Your task to perform on an android device: toggle notifications settings in the gmail app Image 0: 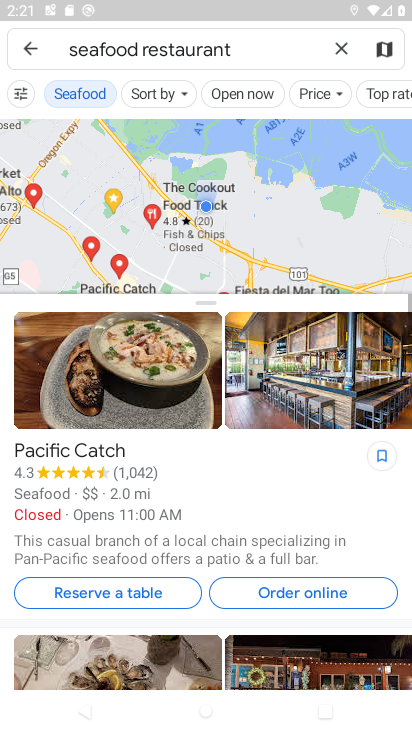
Step 0: press home button
Your task to perform on an android device: toggle notifications settings in the gmail app Image 1: 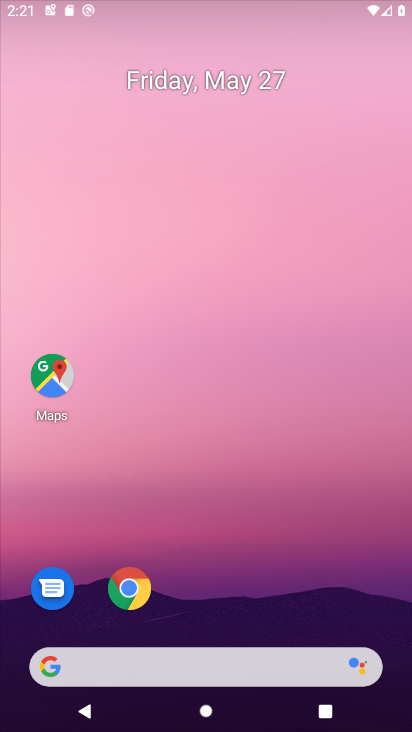
Step 1: drag from (237, 598) to (249, 0)
Your task to perform on an android device: toggle notifications settings in the gmail app Image 2: 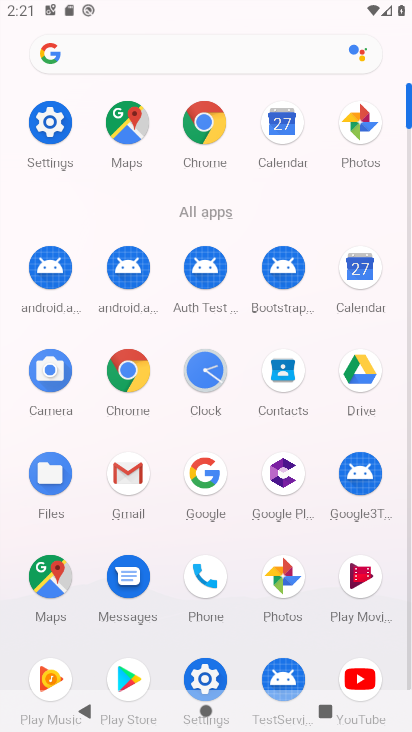
Step 2: click (129, 481)
Your task to perform on an android device: toggle notifications settings in the gmail app Image 3: 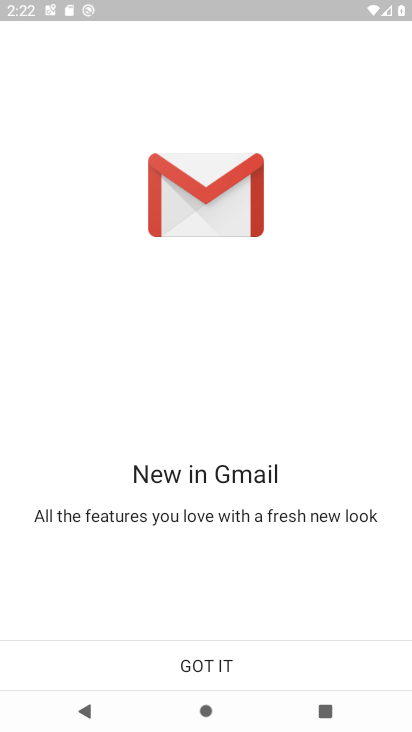
Step 3: click (178, 655)
Your task to perform on an android device: toggle notifications settings in the gmail app Image 4: 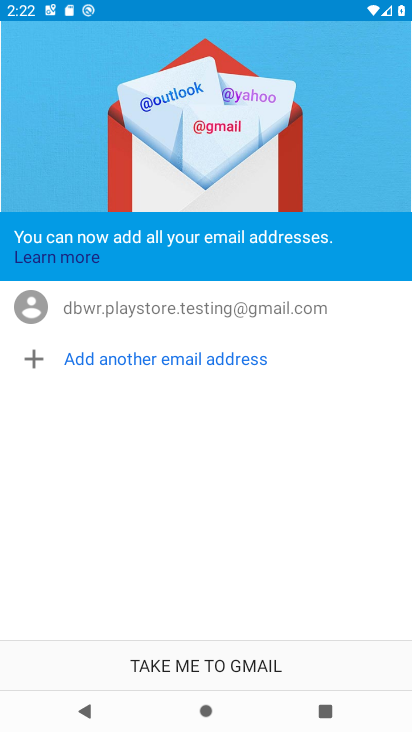
Step 4: click (205, 655)
Your task to perform on an android device: toggle notifications settings in the gmail app Image 5: 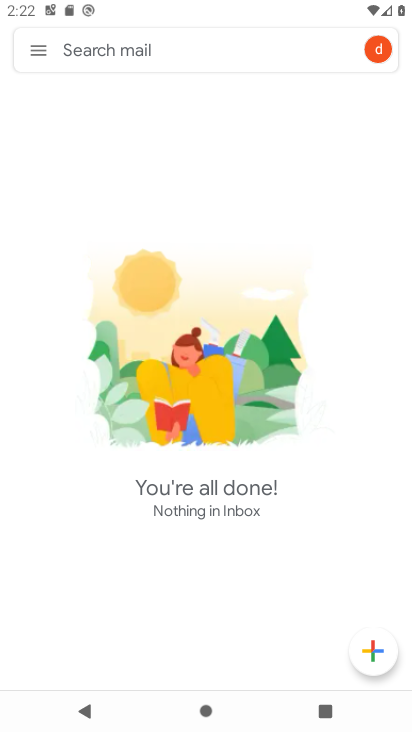
Step 5: click (47, 39)
Your task to perform on an android device: toggle notifications settings in the gmail app Image 6: 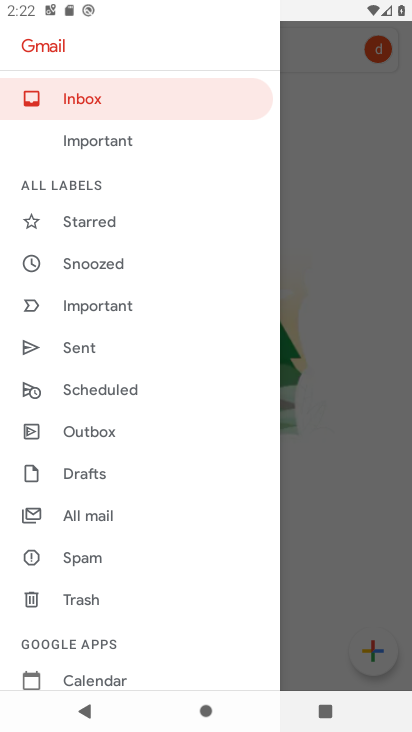
Step 6: drag from (121, 611) to (137, 313)
Your task to perform on an android device: toggle notifications settings in the gmail app Image 7: 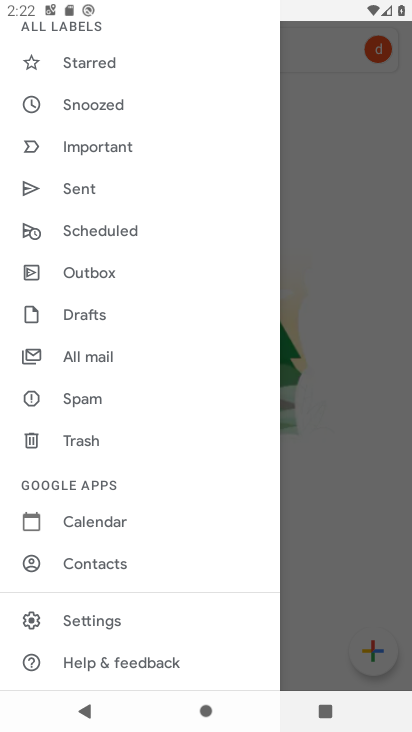
Step 7: click (101, 604)
Your task to perform on an android device: toggle notifications settings in the gmail app Image 8: 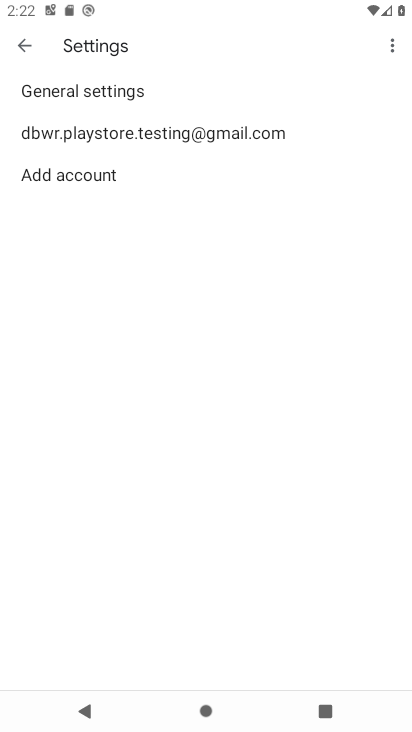
Step 8: click (176, 119)
Your task to perform on an android device: toggle notifications settings in the gmail app Image 9: 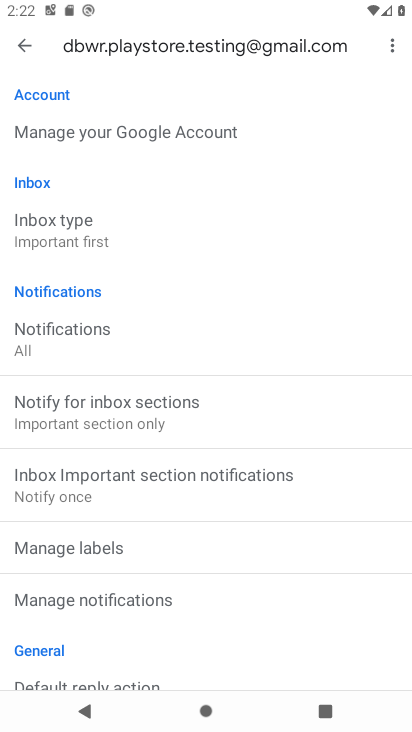
Step 9: click (120, 582)
Your task to perform on an android device: toggle notifications settings in the gmail app Image 10: 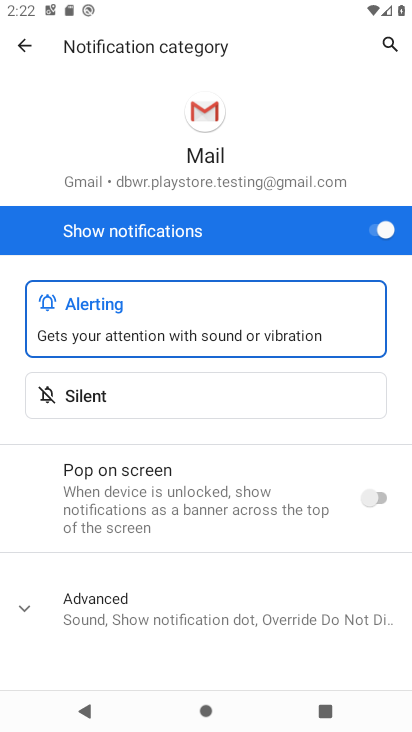
Step 10: click (377, 228)
Your task to perform on an android device: toggle notifications settings in the gmail app Image 11: 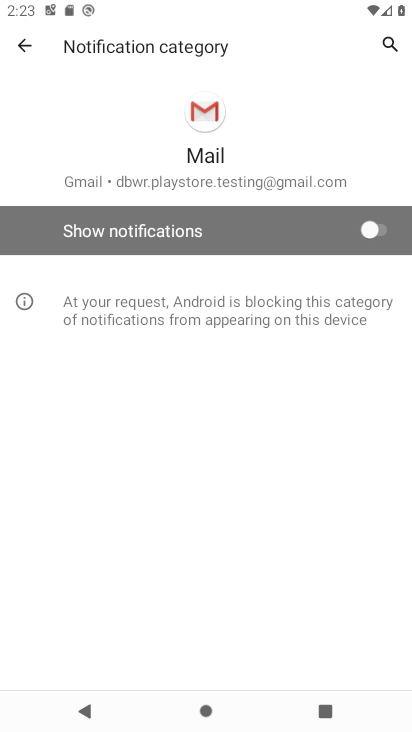
Step 11: task complete